Your task to perform on an android device: see sites visited before in the chrome app Image 0: 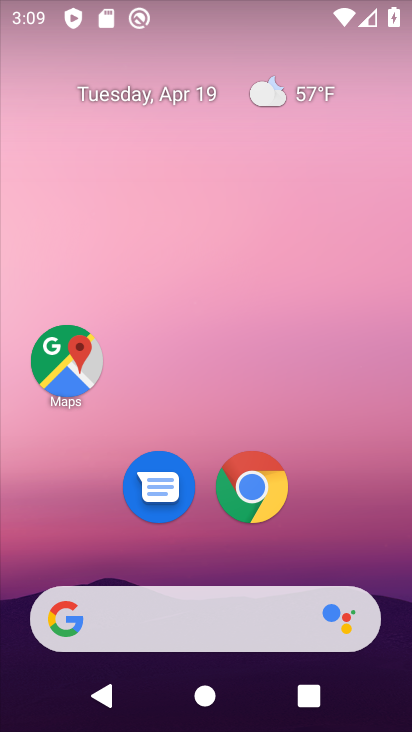
Step 0: drag from (371, 493) to (380, 109)
Your task to perform on an android device: see sites visited before in the chrome app Image 1: 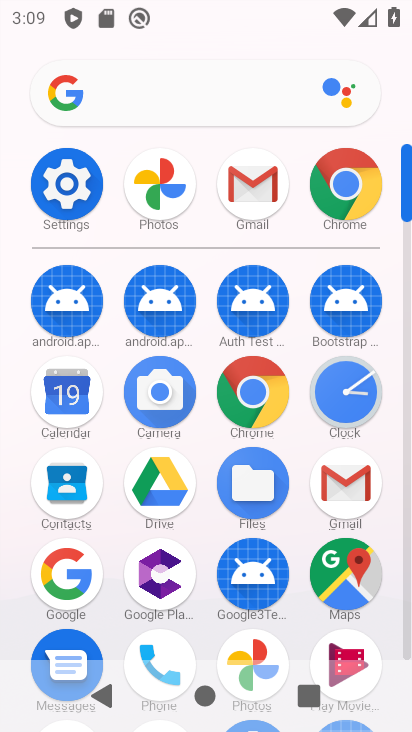
Step 1: click (256, 404)
Your task to perform on an android device: see sites visited before in the chrome app Image 2: 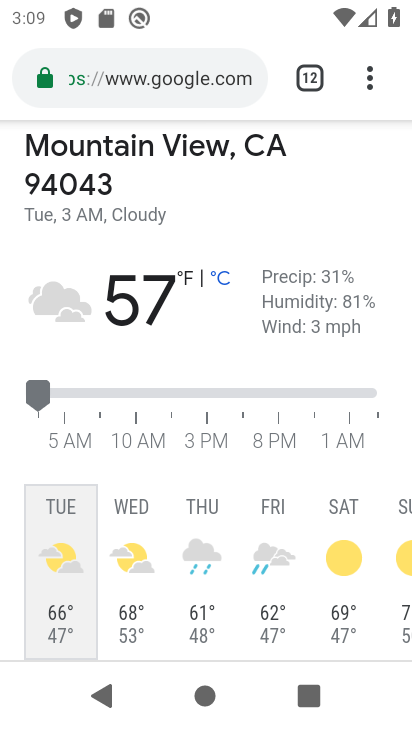
Step 2: click (378, 81)
Your task to perform on an android device: see sites visited before in the chrome app Image 3: 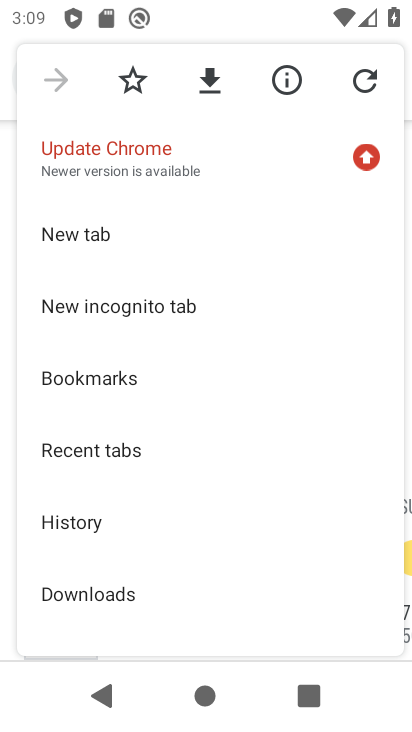
Step 3: drag from (219, 564) to (229, 289)
Your task to perform on an android device: see sites visited before in the chrome app Image 4: 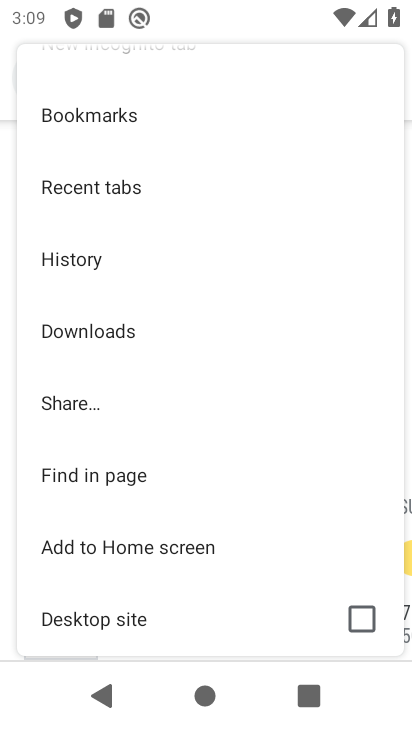
Step 4: drag from (222, 571) to (208, 294)
Your task to perform on an android device: see sites visited before in the chrome app Image 5: 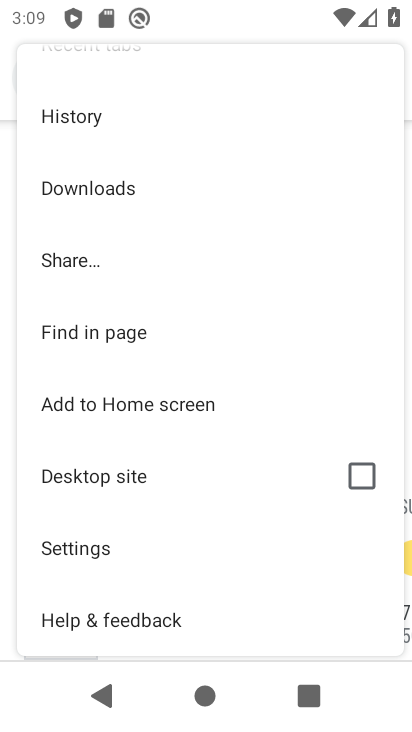
Step 5: drag from (231, 235) to (246, 507)
Your task to perform on an android device: see sites visited before in the chrome app Image 6: 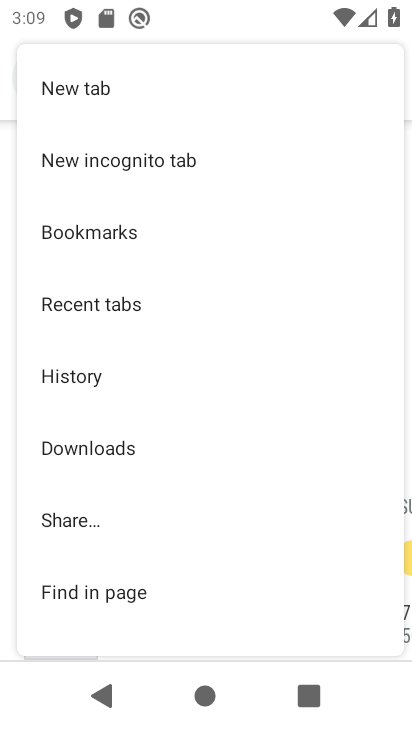
Step 6: drag from (243, 196) to (252, 473)
Your task to perform on an android device: see sites visited before in the chrome app Image 7: 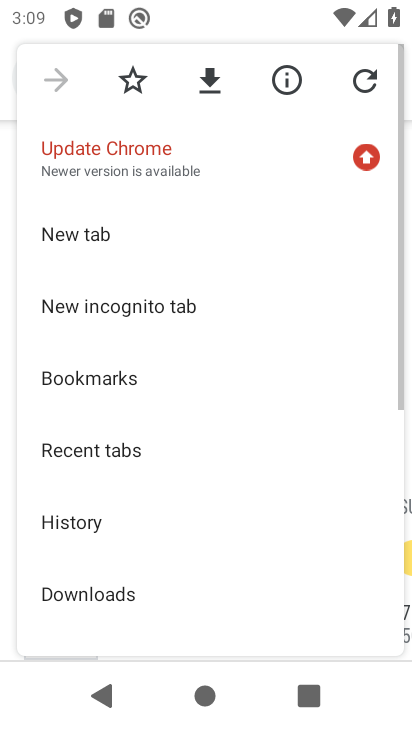
Step 7: click (143, 450)
Your task to perform on an android device: see sites visited before in the chrome app Image 8: 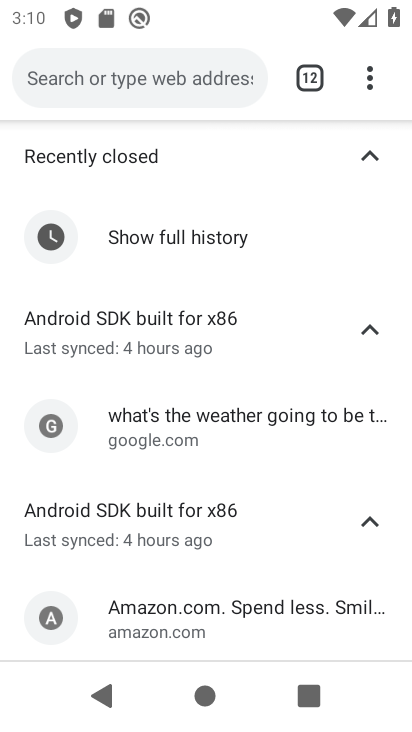
Step 8: task complete